Your task to perform on an android device: turn on notifications settings in the gmail app Image 0: 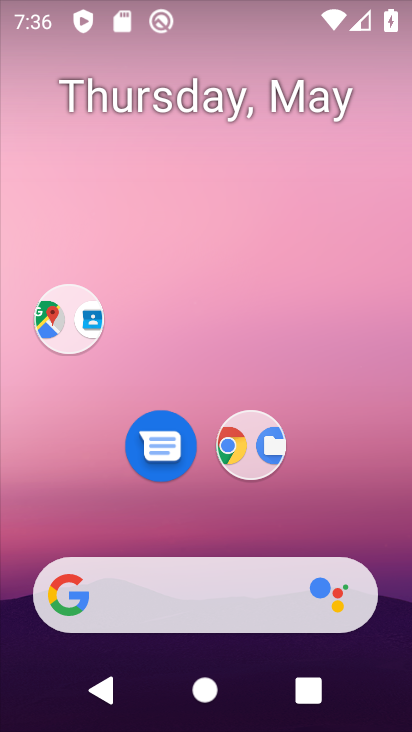
Step 0: press home button
Your task to perform on an android device: turn on notifications settings in the gmail app Image 1: 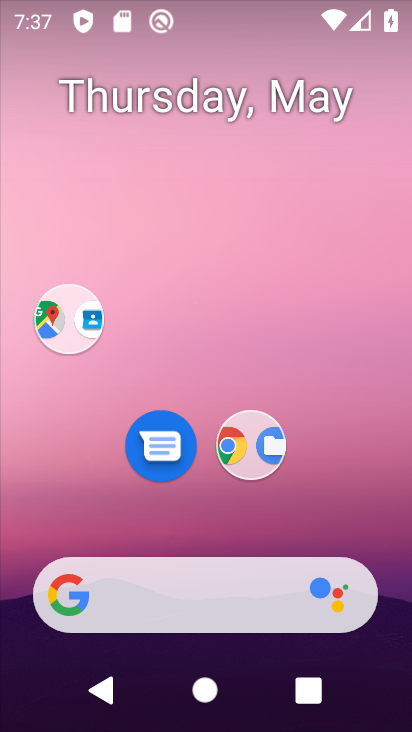
Step 1: drag from (213, 404) to (186, 132)
Your task to perform on an android device: turn on notifications settings in the gmail app Image 2: 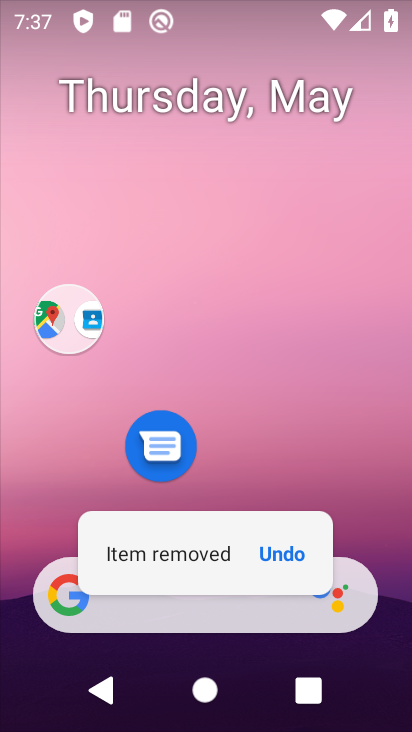
Step 2: click (296, 392)
Your task to perform on an android device: turn on notifications settings in the gmail app Image 3: 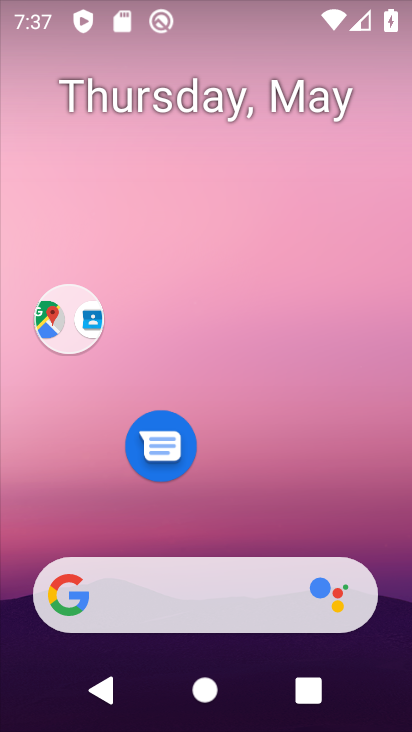
Step 3: drag from (272, 504) to (179, 0)
Your task to perform on an android device: turn on notifications settings in the gmail app Image 4: 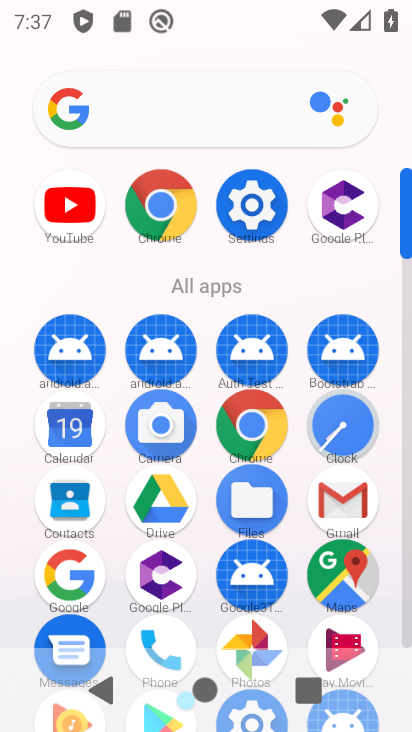
Step 4: click (344, 496)
Your task to perform on an android device: turn on notifications settings in the gmail app Image 5: 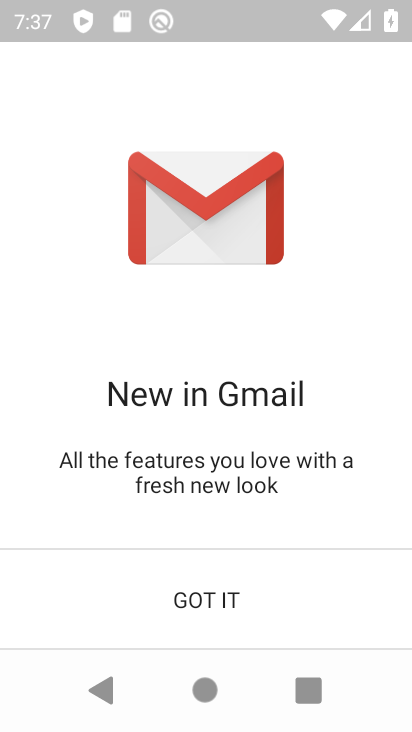
Step 5: click (214, 592)
Your task to perform on an android device: turn on notifications settings in the gmail app Image 6: 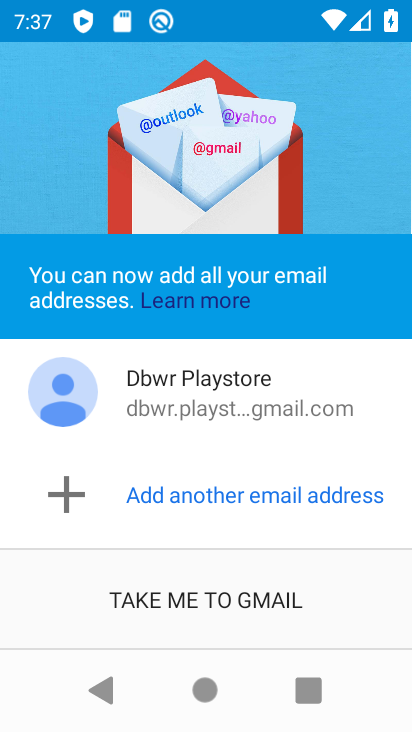
Step 6: click (207, 591)
Your task to perform on an android device: turn on notifications settings in the gmail app Image 7: 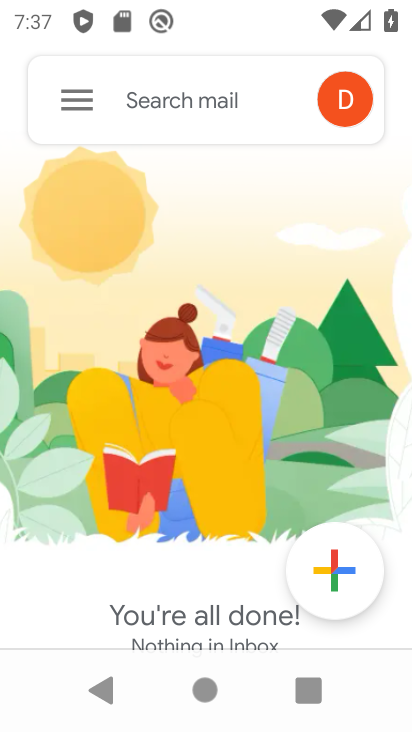
Step 7: click (101, 100)
Your task to perform on an android device: turn on notifications settings in the gmail app Image 8: 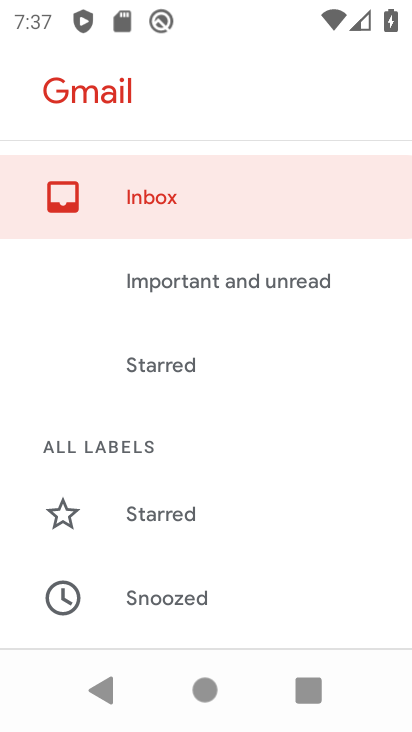
Step 8: drag from (234, 554) to (288, 190)
Your task to perform on an android device: turn on notifications settings in the gmail app Image 9: 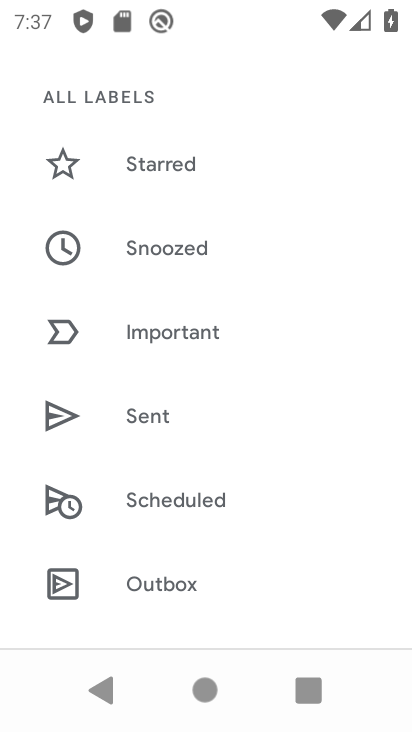
Step 9: drag from (232, 552) to (232, 248)
Your task to perform on an android device: turn on notifications settings in the gmail app Image 10: 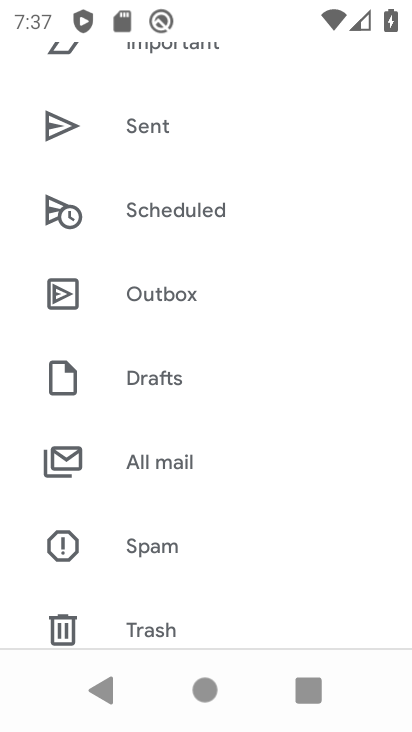
Step 10: drag from (191, 565) to (194, 350)
Your task to perform on an android device: turn on notifications settings in the gmail app Image 11: 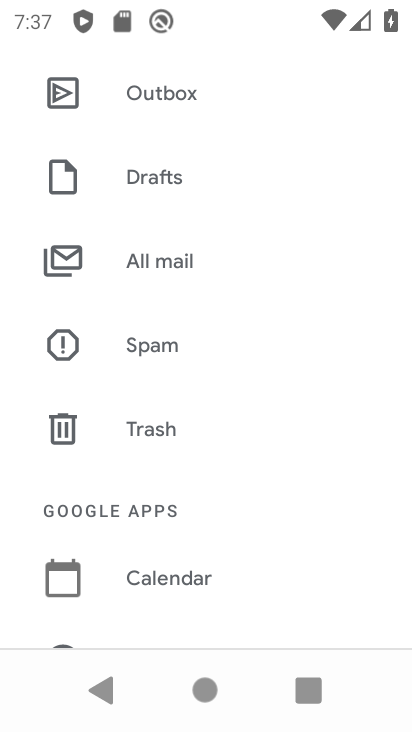
Step 11: drag from (182, 518) to (169, 229)
Your task to perform on an android device: turn on notifications settings in the gmail app Image 12: 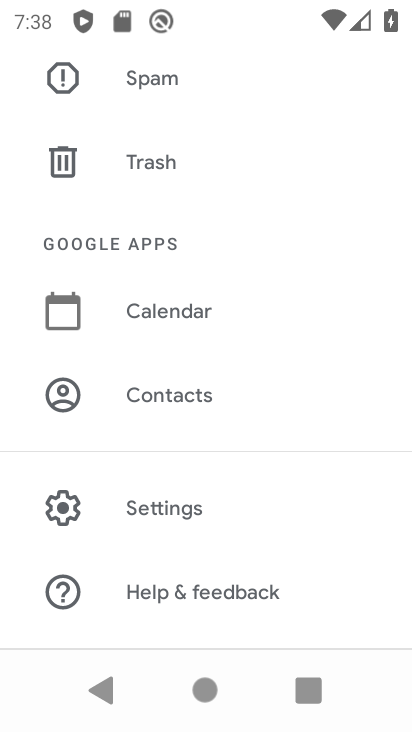
Step 12: click (176, 504)
Your task to perform on an android device: turn on notifications settings in the gmail app Image 13: 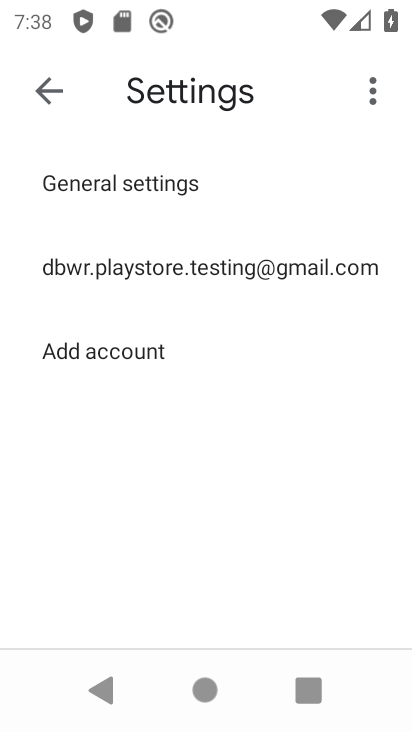
Step 13: click (189, 276)
Your task to perform on an android device: turn on notifications settings in the gmail app Image 14: 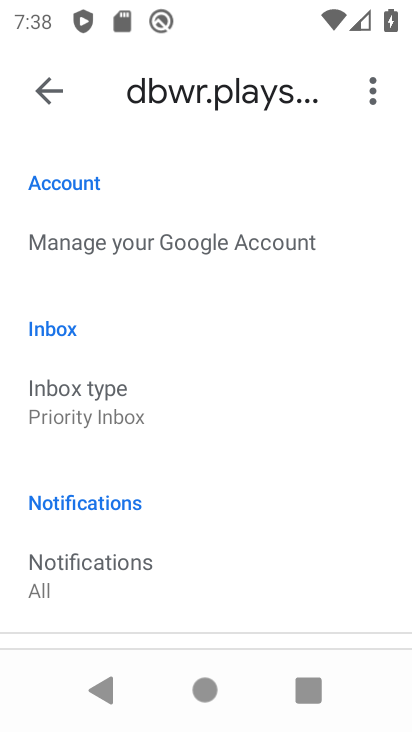
Step 14: drag from (209, 466) to (215, 340)
Your task to perform on an android device: turn on notifications settings in the gmail app Image 15: 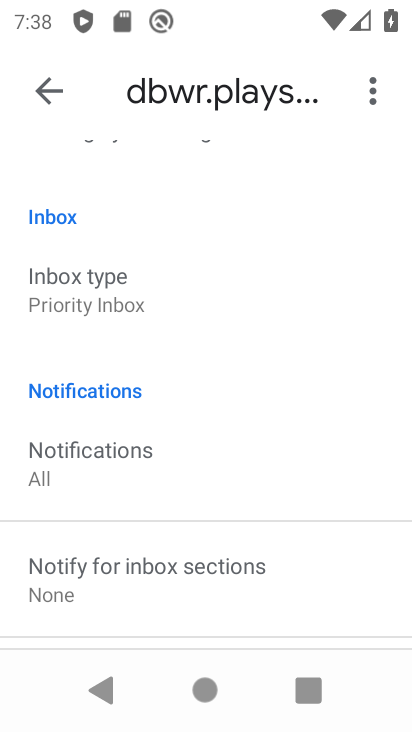
Step 15: click (100, 465)
Your task to perform on an android device: turn on notifications settings in the gmail app Image 16: 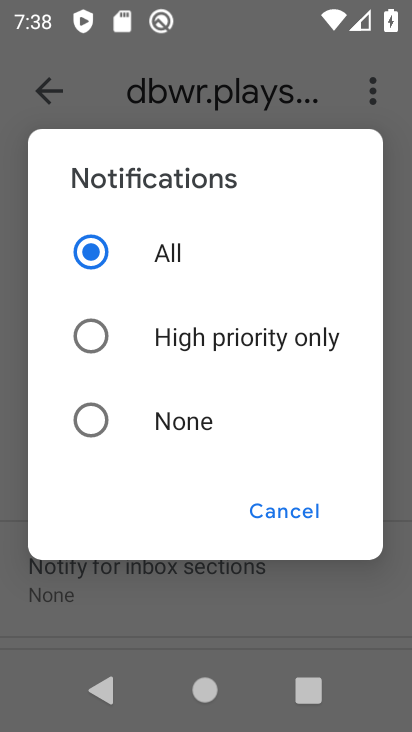
Step 16: click (149, 249)
Your task to perform on an android device: turn on notifications settings in the gmail app Image 17: 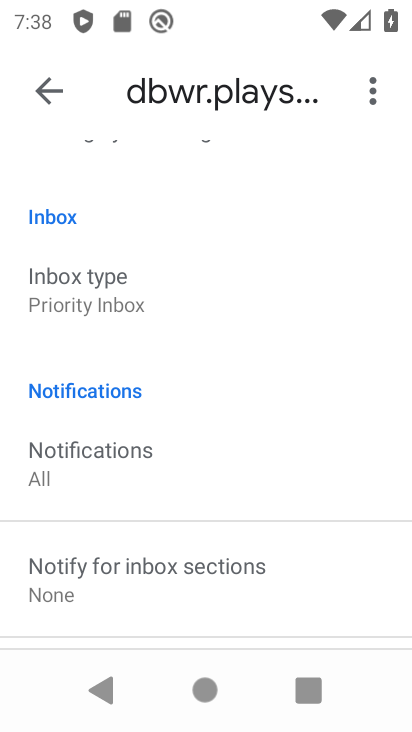
Step 17: task complete